Your task to perform on an android device: turn off javascript in the chrome app Image 0: 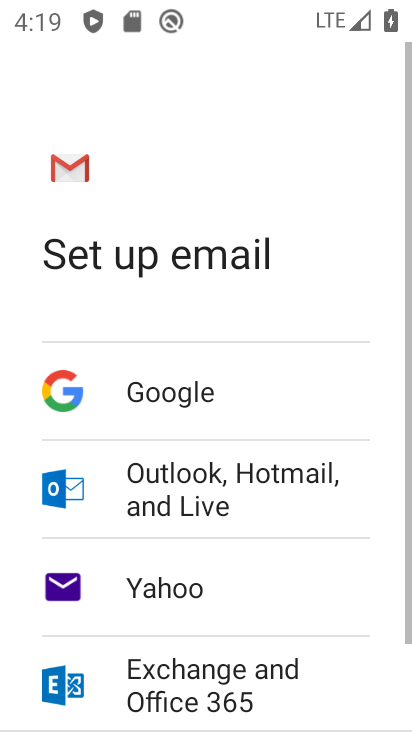
Step 0: press home button
Your task to perform on an android device: turn off javascript in the chrome app Image 1: 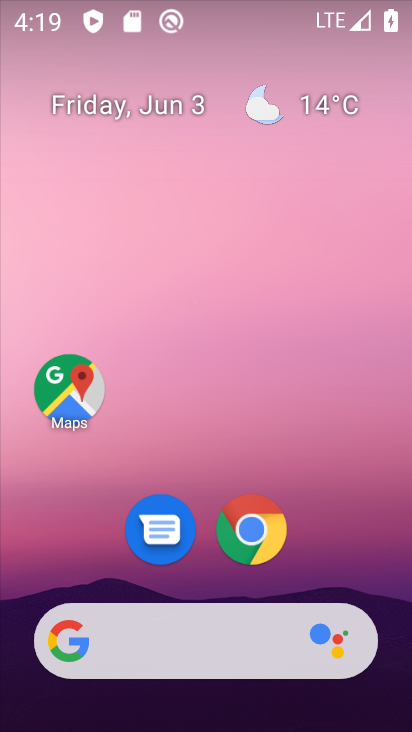
Step 1: click (254, 516)
Your task to perform on an android device: turn off javascript in the chrome app Image 2: 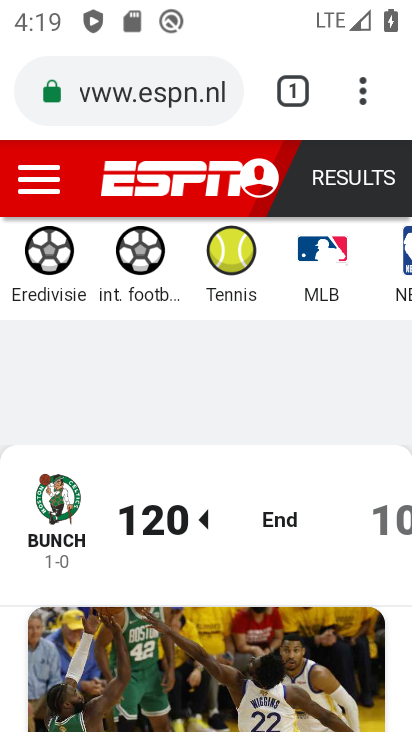
Step 2: click (365, 87)
Your task to perform on an android device: turn off javascript in the chrome app Image 3: 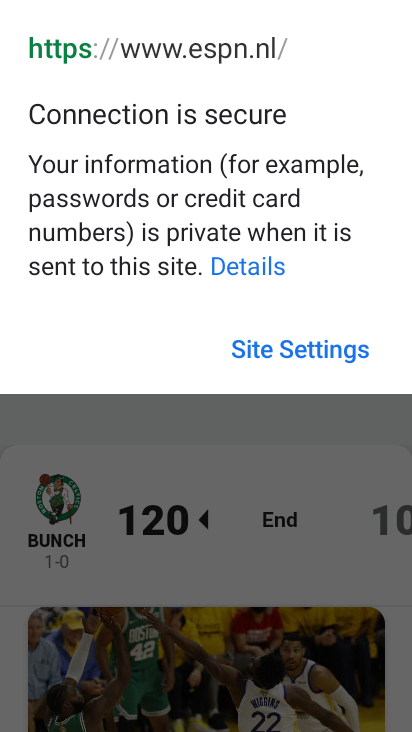
Step 3: click (244, 463)
Your task to perform on an android device: turn off javascript in the chrome app Image 4: 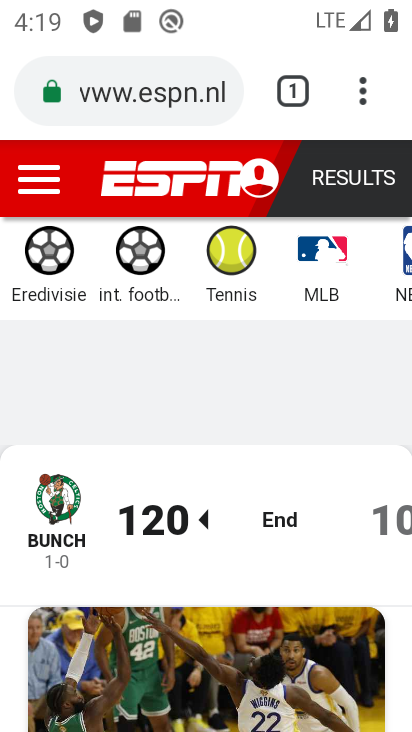
Step 4: click (358, 92)
Your task to perform on an android device: turn off javascript in the chrome app Image 5: 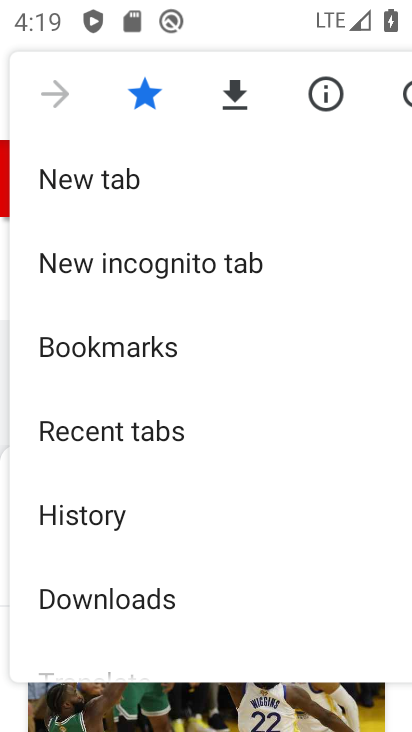
Step 5: drag from (205, 607) to (199, 67)
Your task to perform on an android device: turn off javascript in the chrome app Image 6: 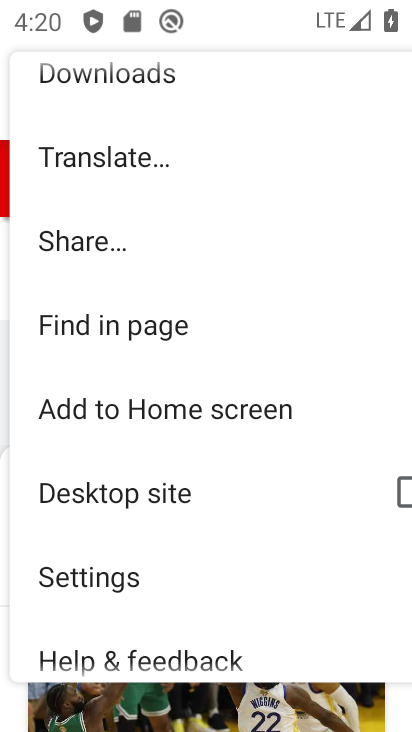
Step 6: click (154, 581)
Your task to perform on an android device: turn off javascript in the chrome app Image 7: 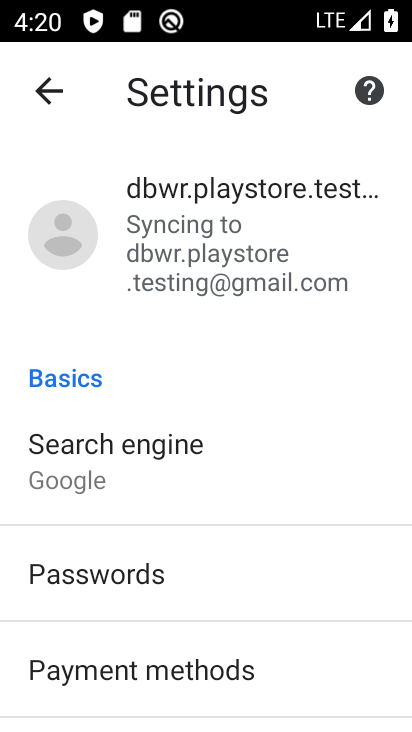
Step 7: drag from (262, 667) to (267, 203)
Your task to perform on an android device: turn off javascript in the chrome app Image 8: 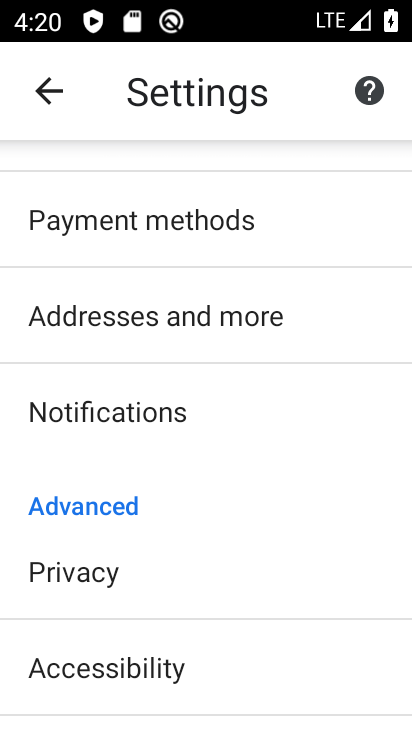
Step 8: drag from (208, 654) to (236, 176)
Your task to perform on an android device: turn off javascript in the chrome app Image 9: 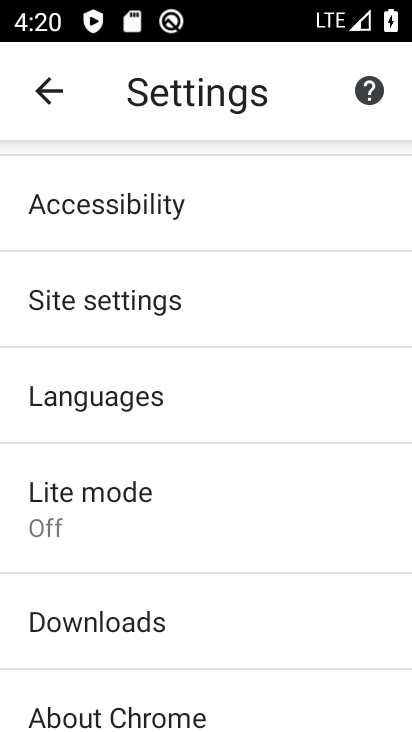
Step 9: click (191, 301)
Your task to perform on an android device: turn off javascript in the chrome app Image 10: 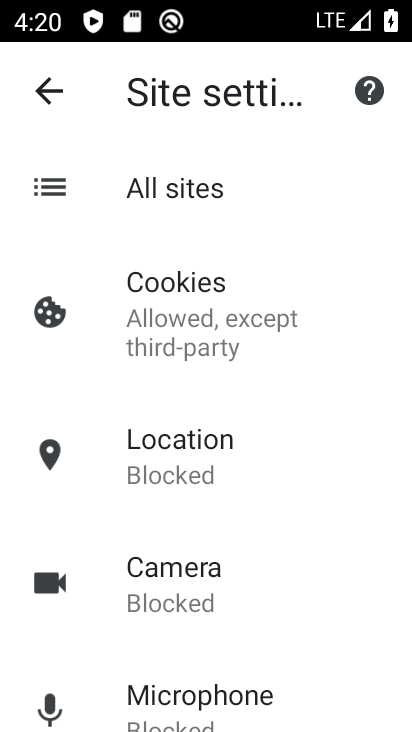
Step 10: drag from (109, 680) to (134, 242)
Your task to perform on an android device: turn off javascript in the chrome app Image 11: 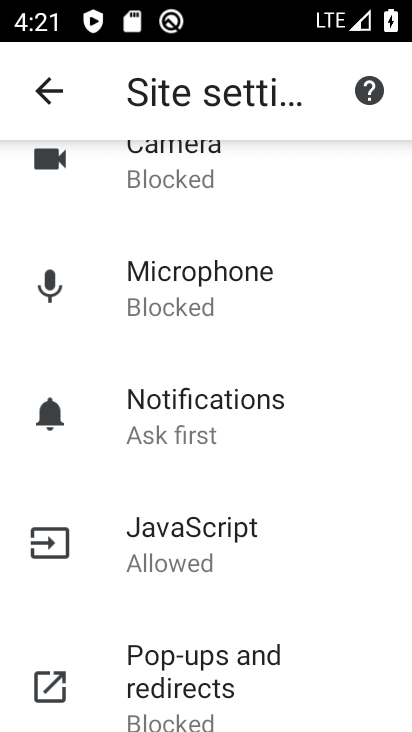
Step 11: click (107, 554)
Your task to perform on an android device: turn off javascript in the chrome app Image 12: 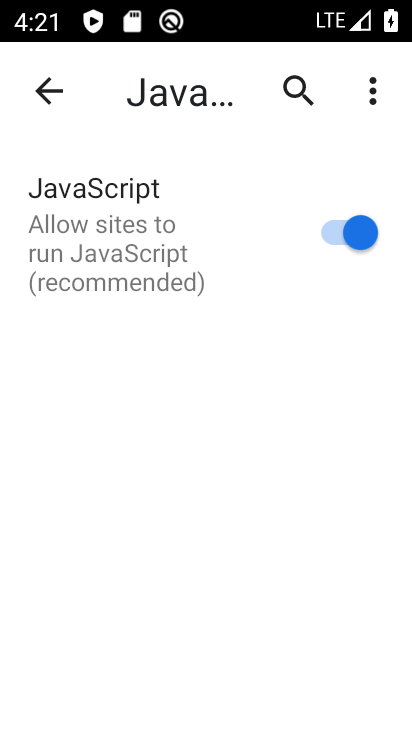
Step 12: click (345, 241)
Your task to perform on an android device: turn off javascript in the chrome app Image 13: 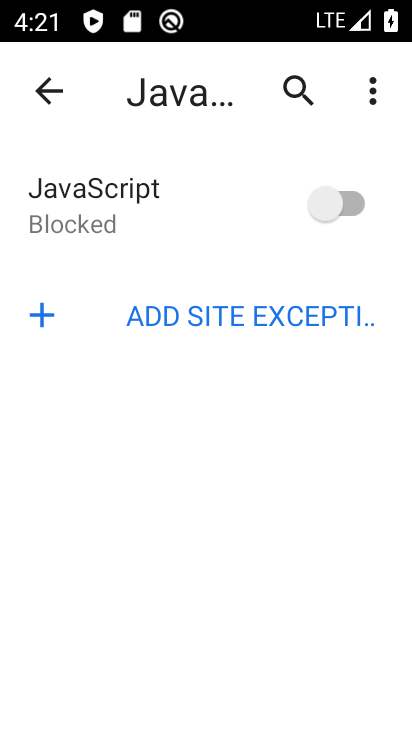
Step 13: task complete